Your task to perform on an android device: Clear the shopping cart on newegg. Search for logitech g903 on newegg, select the first entry, add it to the cart, then select checkout. Image 0: 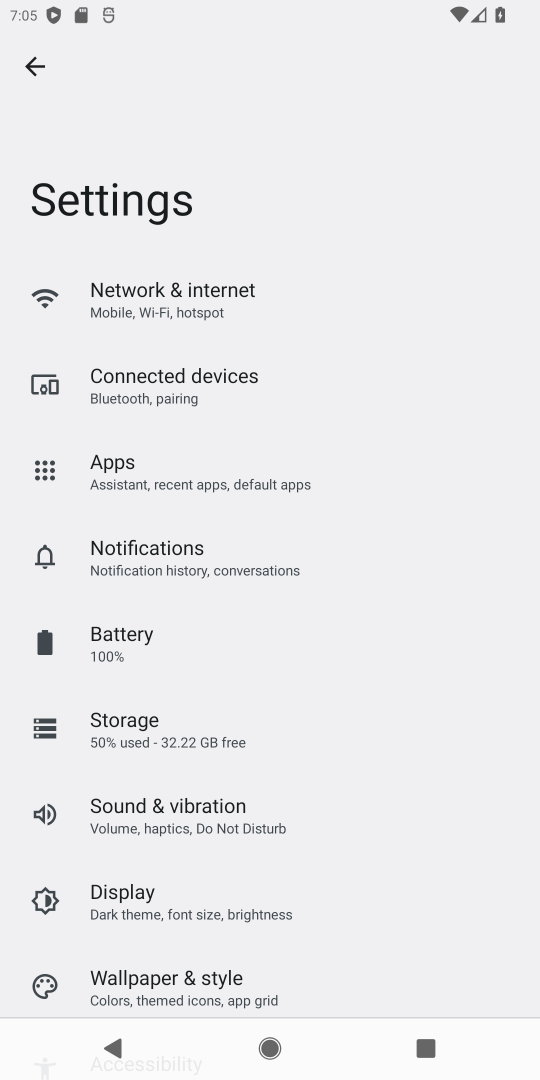
Step 0: press home button
Your task to perform on an android device: Clear the shopping cart on newegg. Search for logitech g903 on newegg, select the first entry, add it to the cart, then select checkout. Image 1: 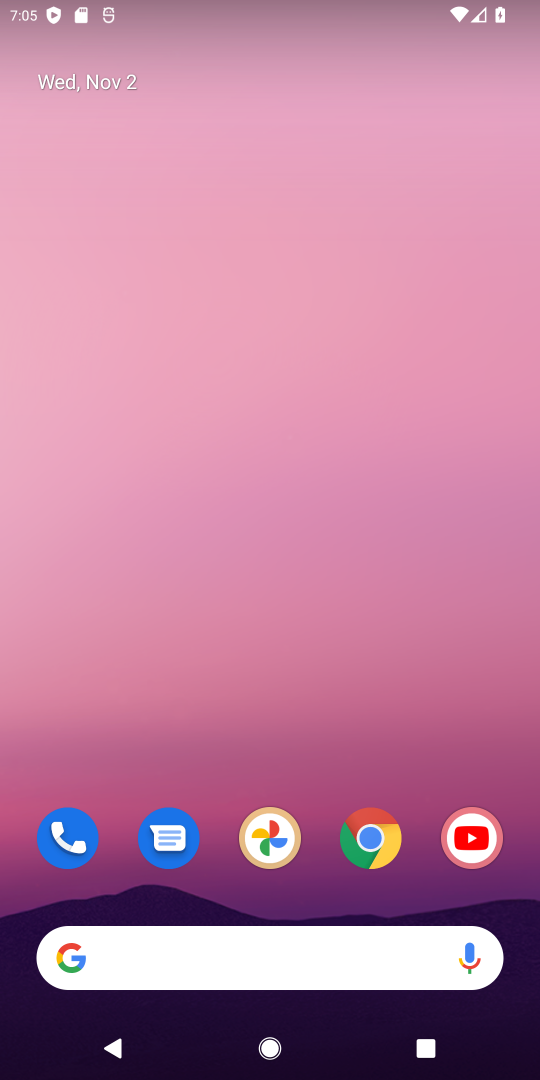
Step 1: click (360, 856)
Your task to perform on an android device: Clear the shopping cart on newegg. Search for logitech g903 on newegg, select the first entry, add it to the cart, then select checkout. Image 2: 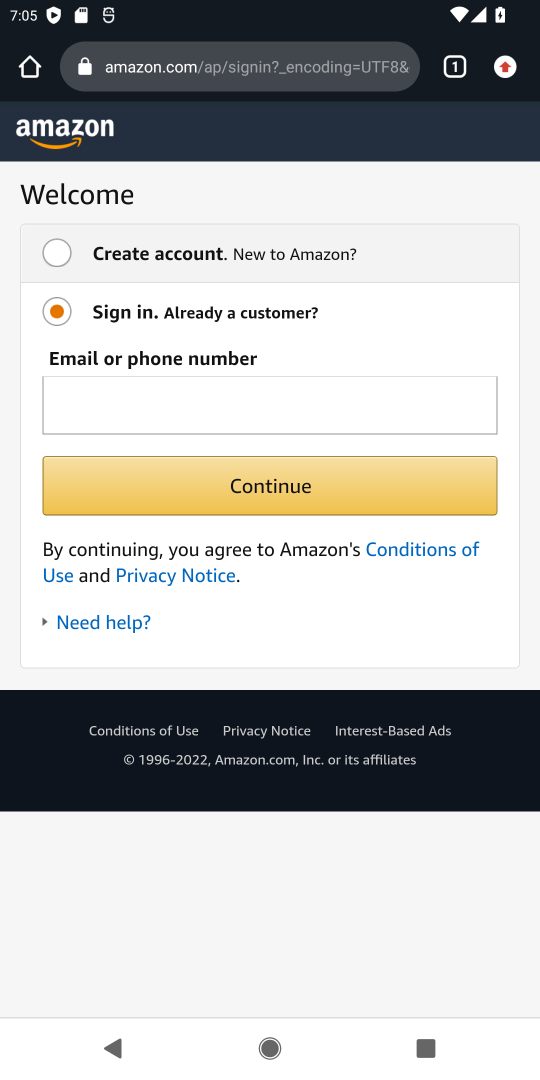
Step 2: click (306, 83)
Your task to perform on an android device: Clear the shopping cart on newegg. Search for logitech g903 on newegg, select the first entry, add it to the cart, then select checkout. Image 3: 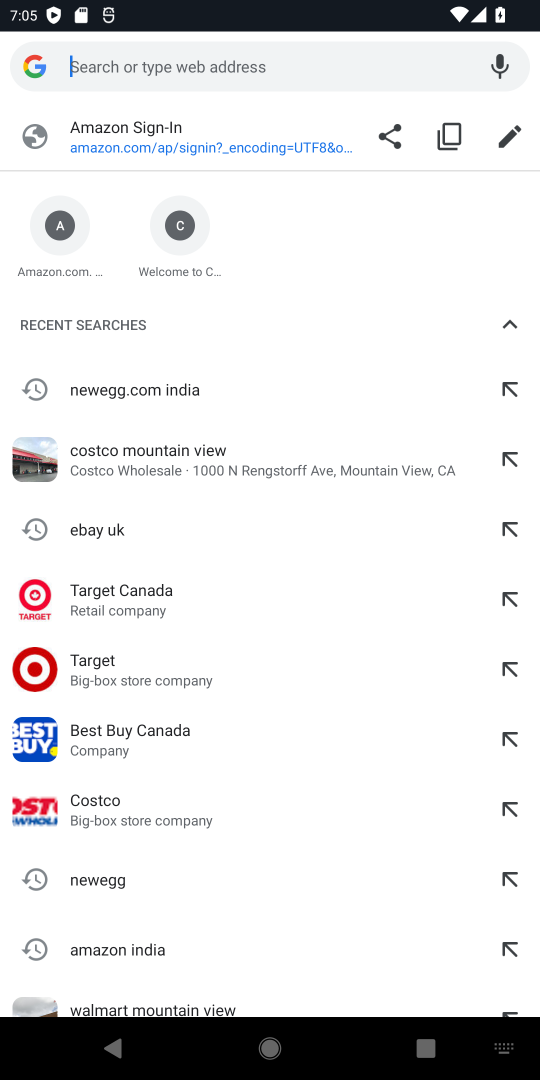
Step 3: type "newegg"
Your task to perform on an android device: Clear the shopping cart on newegg. Search for logitech g903 on newegg, select the first entry, add it to the cart, then select checkout. Image 4: 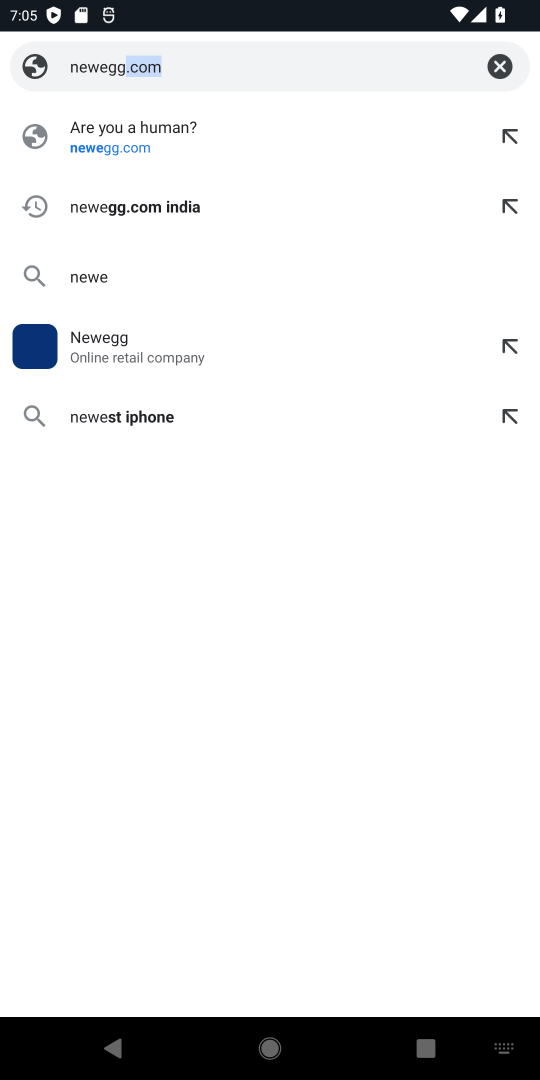
Step 4: type ""
Your task to perform on an android device: Clear the shopping cart on newegg. Search for logitech g903 on newegg, select the first entry, add it to the cart, then select checkout. Image 5: 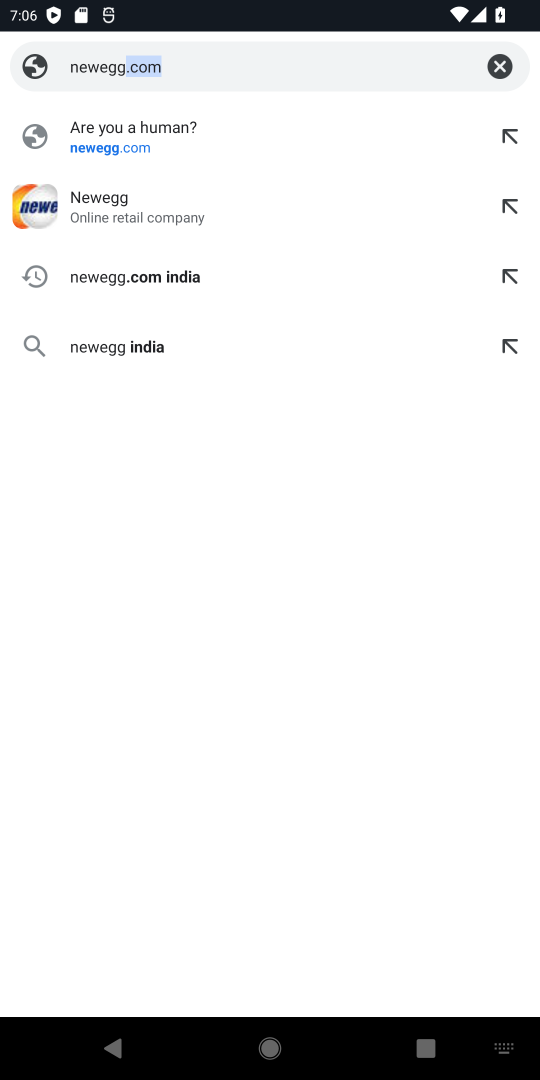
Step 5: press enter
Your task to perform on an android device: Clear the shopping cart on newegg. Search for logitech g903 on newegg, select the first entry, add it to the cart, then select checkout. Image 6: 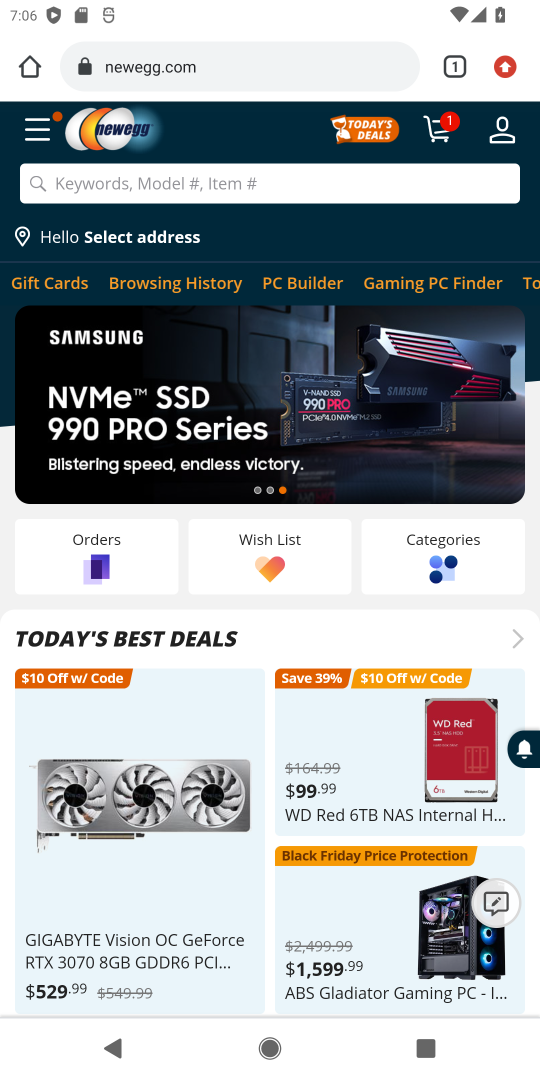
Step 6: click (448, 141)
Your task to perform on an android device: Clear the shopping cart on newegg. Search for logitech g903 on newegg, select the first entry, add it to the cart, then select checkout. Image 7: 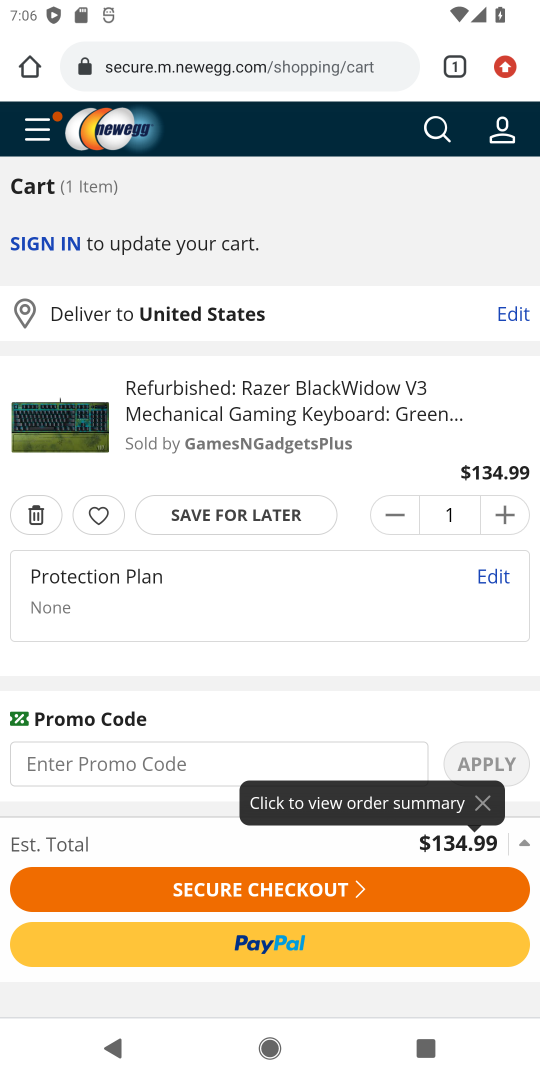
Step 7: click (26, 522)
Your task to perform on an android device: Clear the shopping cart on newegg. Search for logitech g903 on newegg, select the first entry, add it to the cart, then select checkout. Image 8: 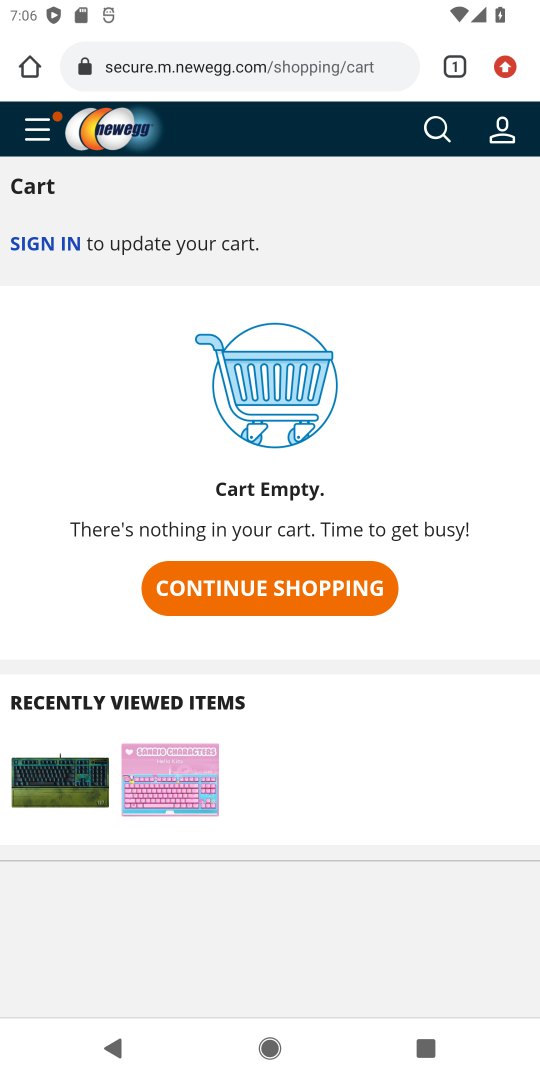
Step 8: click (293, 595)
Your task to perform on an android device: Clear the shopping cart on newegg. Search for logitech g903 on newegg, select the first entry, add it to the cart, then select checkout. Image 9: 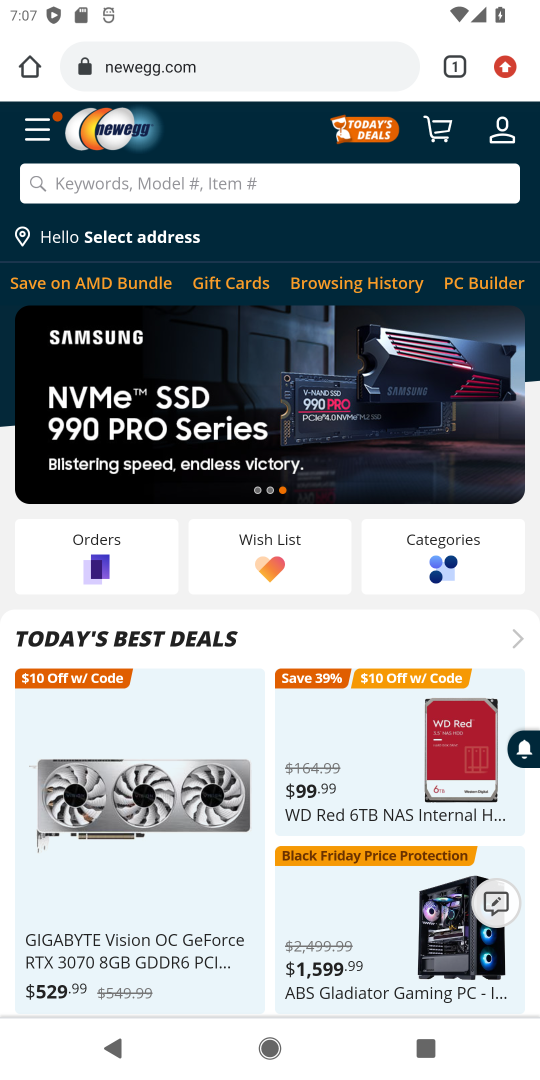
Step 9: click (276, 172)
Your task to perform on an android device: Clear the shopping cart on newegg. Search for logitech g903 on newegg, select the first entry, add it to the cart, then select checkout. Image 10: 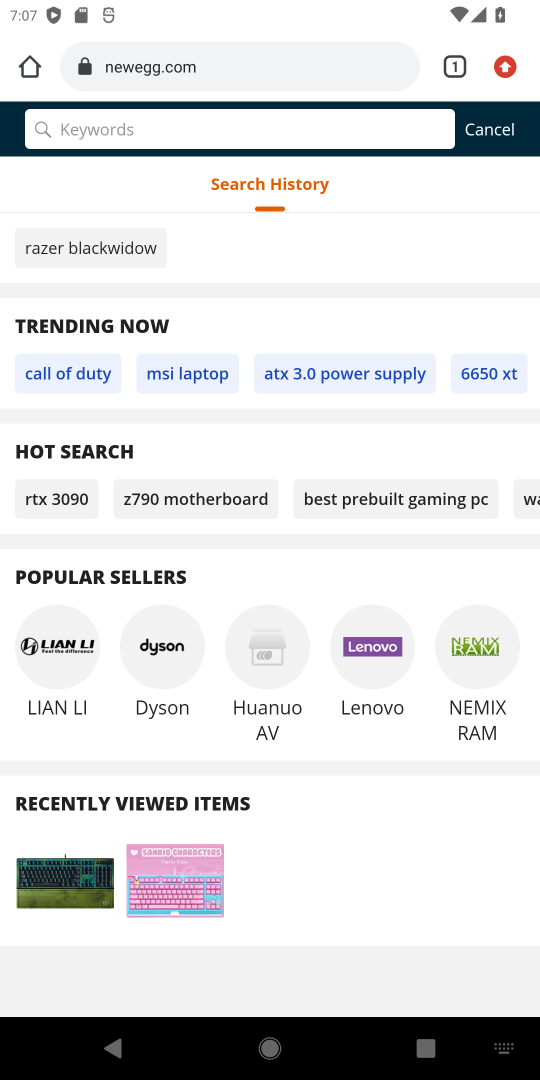
Step 10: type "logitech g903"
Your task to perform on an android device: Clear the shopping cart on newegg. Search for logitech g903 on newegg, select the first entry, add it to the cart, then select checkout. Image 11: 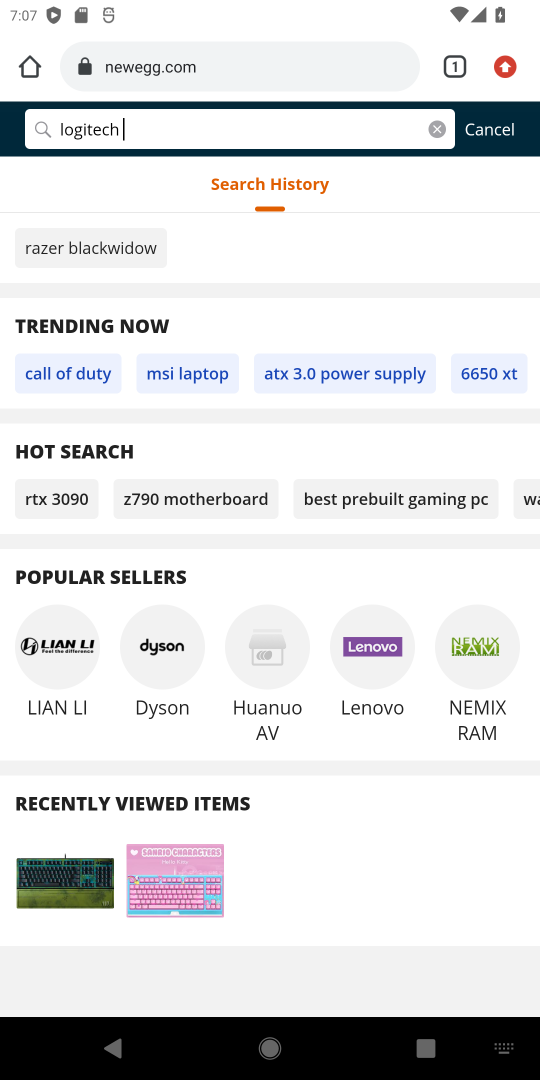
Step 11: type ""
Your task to perform on an android device: Clear the shopping cart on newegg. Search for logitech g903 on newegg, select the first entry, add it to the cart, then select checkout. Image 12: 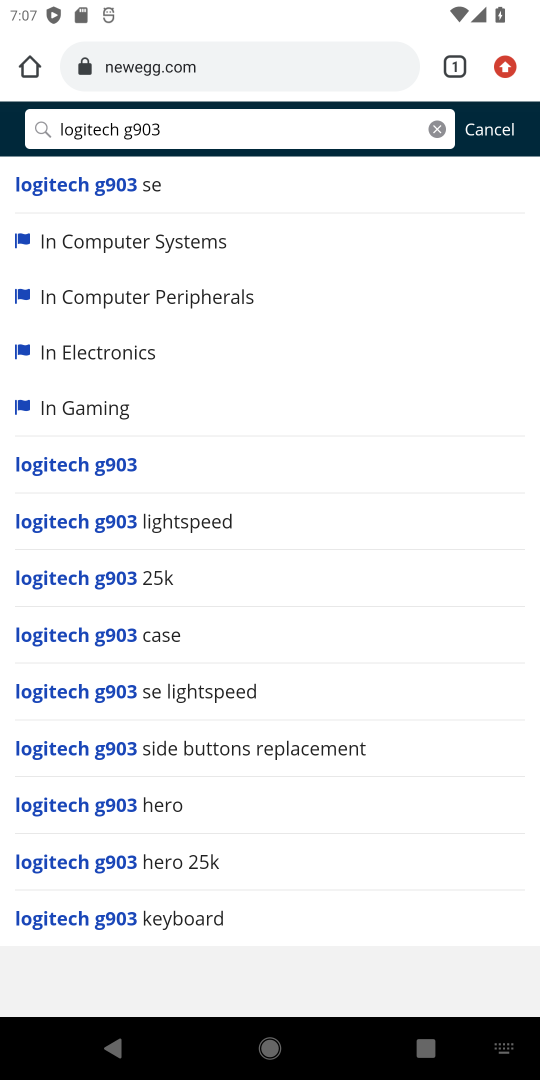
Step 12: click (491, 128)
Your task to perform on an android device: Clear the shopping cart on newegg. Search for logitech g903 on newegg, select the first entry, add it to the cart, then select checkout. Image 13: 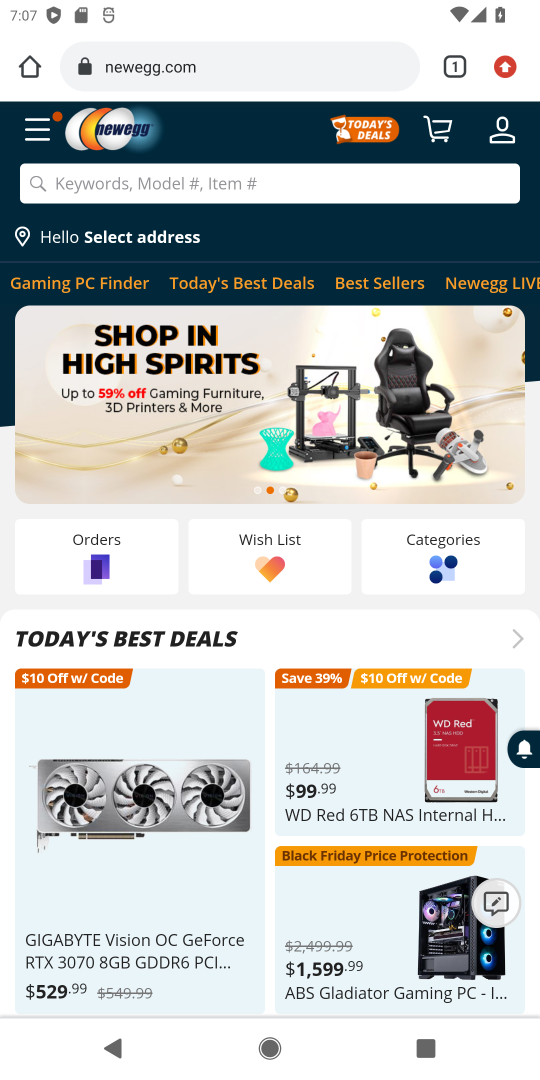
Step 13: click (442, 132)
Your task to perform on an android device: Clear the shopping cart on newegg. Search for logitech g903 on newegg, select the first entry, add it to the cart, then select checkout. Image 14: 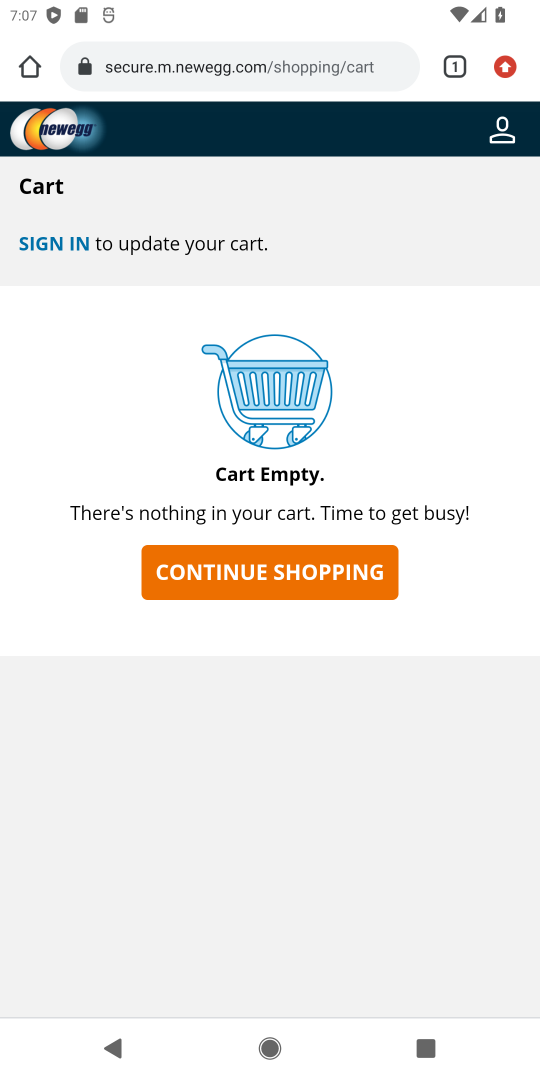
Step 14: click (265, 588)
Your task to perform on an android device: Clear the shopping cart on newegg. Search for logitech g903 on newegg, select the first entry, add it to the cart, then select checkout. Image 15: 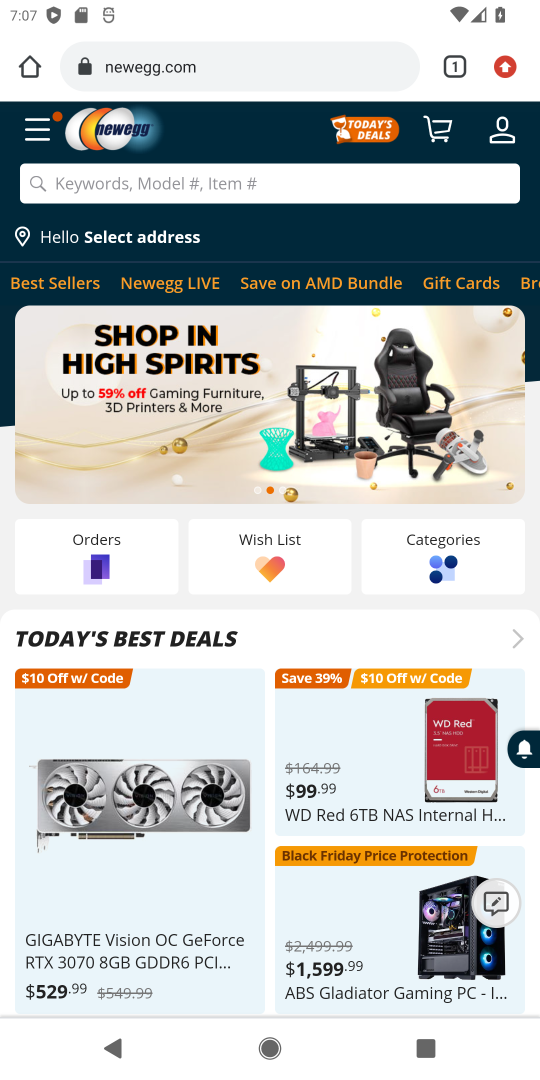
Step 15: click (257, 186)
Your task to perform on an android device: Clear the shopping cart on newegg. Search for logitech g903 on newegg, select the first entry, add it to the cart, then select checkout. Image 16: 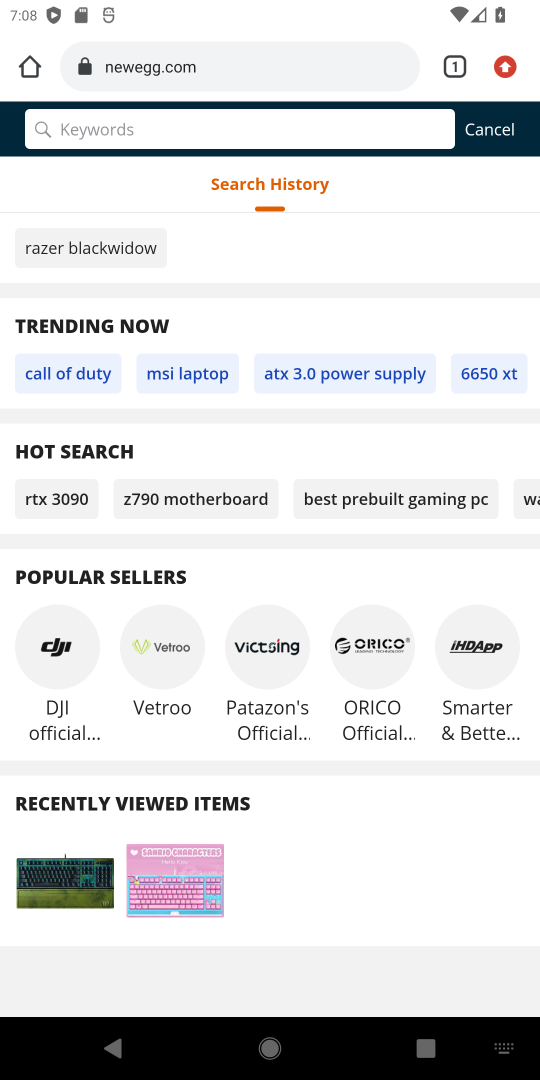
Step 16: type "logitech g903"
Your task to perform on an android device: Clear the shopping cart on newegg. Search for logitech g903 on newegg, select the first entry, add it to the cart, then select checkout. Image 17: 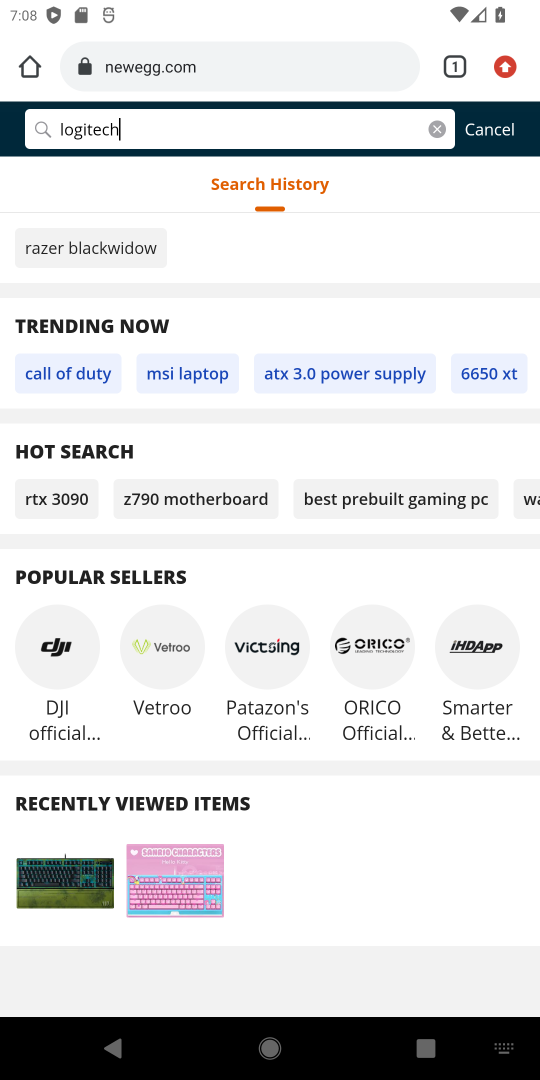
Step 17: type ""
Your task to perform on an android device: Clear the shopping cart on newegg. Search for logitech g903 on newegg, select the first entry, add it to the cart, then select checkout. Image 18: 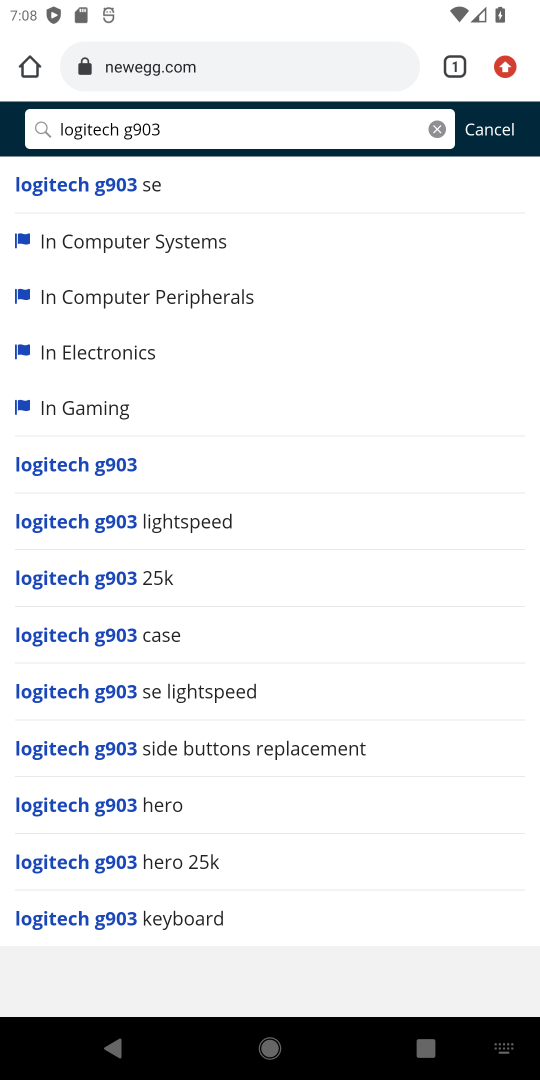
Step 18: press enter
Your task to perform on an android device: Clear the shopping cart on newegg. Search for logitech g903 on newegg, select the first entry, add it to the cart, then select checkout. Image 19: 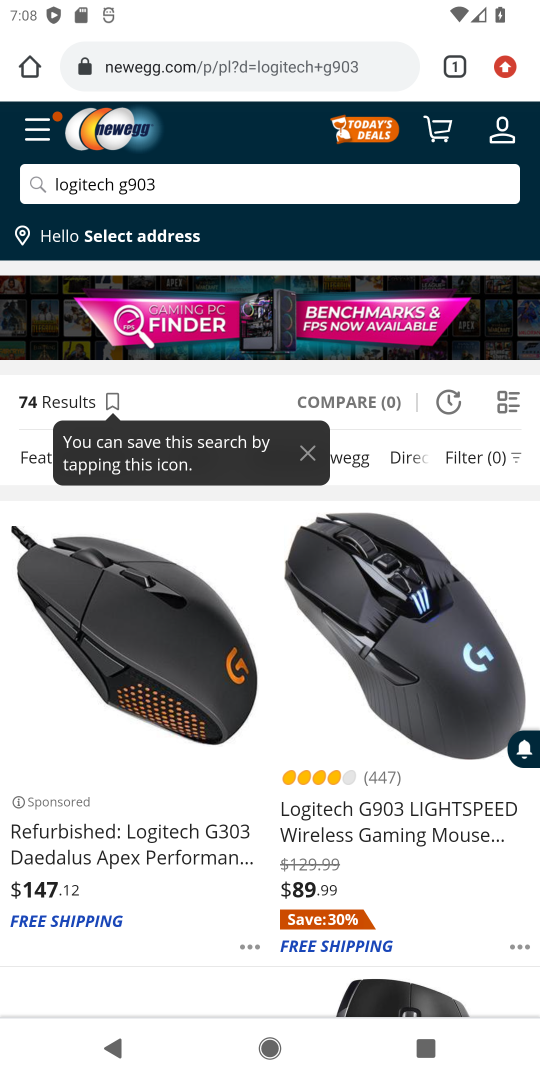
Step 19: click (196, 712)
Your task to perform on an android device: Clear the shopping cart on newegg. Search for logitech g903 on newegg, select the first entry, add it to the cart, then select checkout. Image 20: 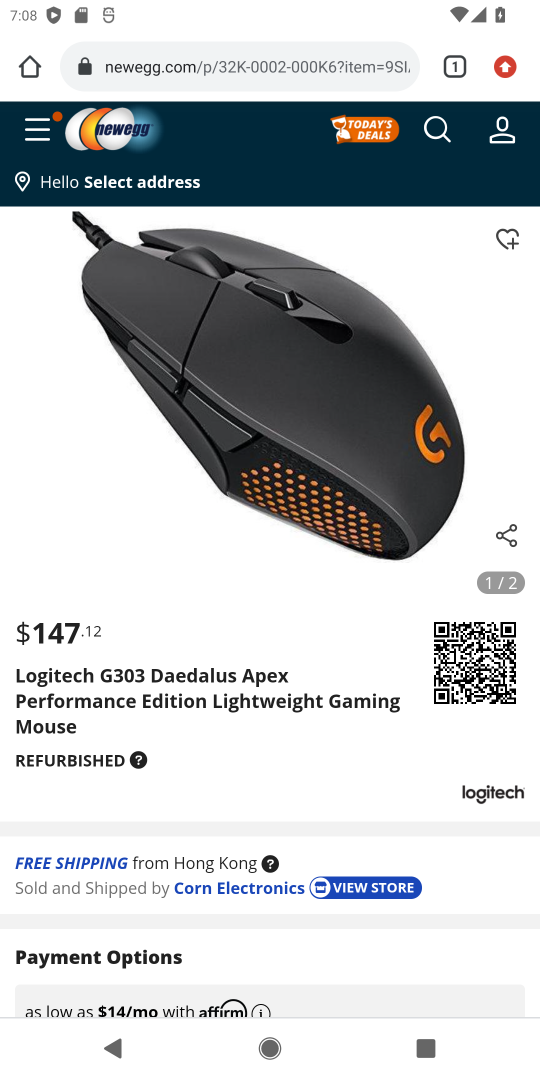
Step 20: drag from (367, 835) to (349, 383)
Your task to perform on an android device: Clear the shopping cart on newegg. Search for logitech g903 on newegg, select the first entry, add it to the cart, then select checkout. Image 21: 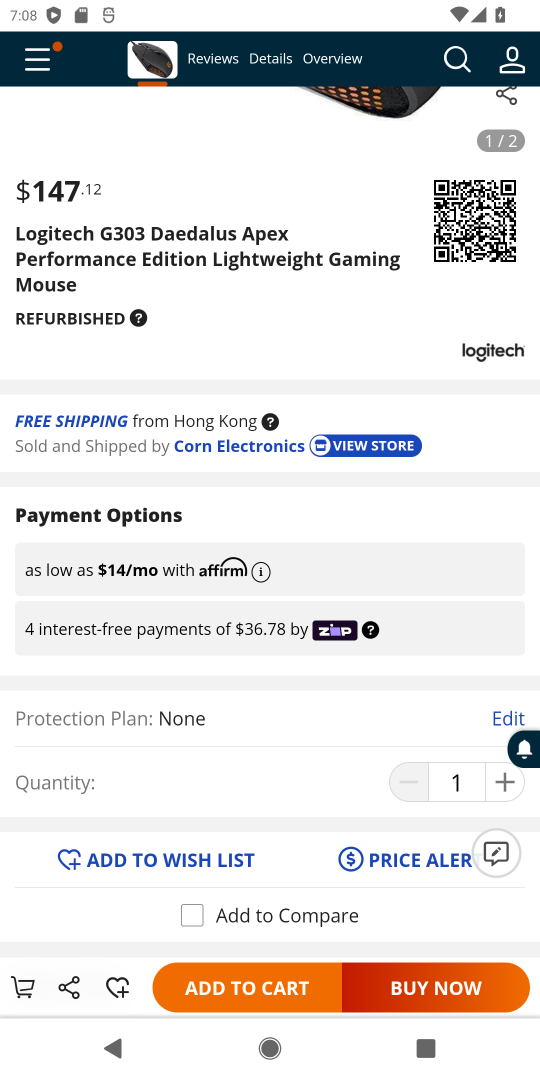
Step 21: click (279, 995)
Your task to perform on an android device: Clear the shopping cart on newegg. Search for logitech g903 on newegg, select the first entry, add it to the cart, then select checkout. Image 22: 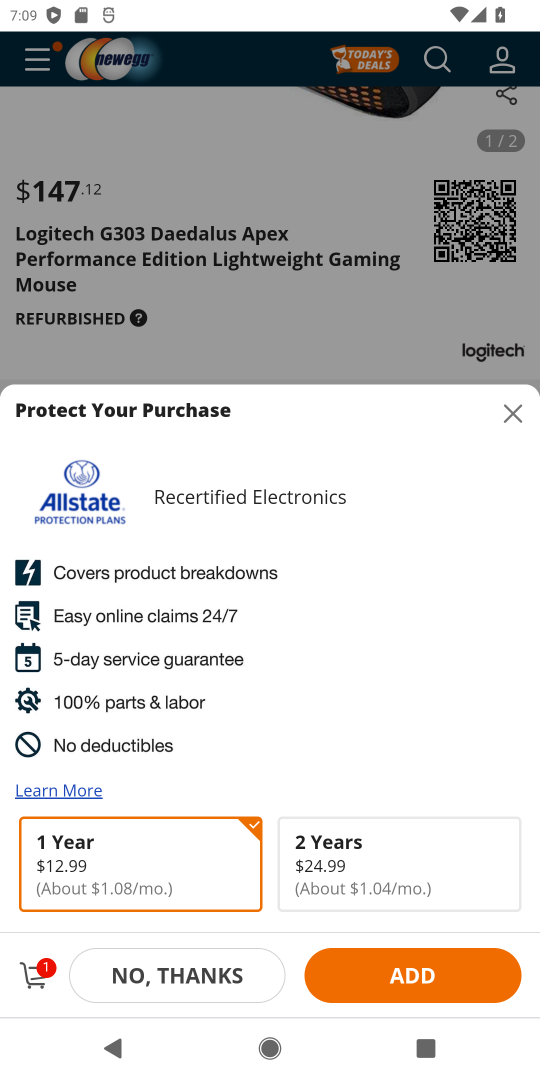
Step 22: click (281, 993)
Your task to perform on an android device: Clear the shopping cart on newegg. Search for logitech g903 on newegg, select the first entry, add it to the cart, then select checkout. Image 23: 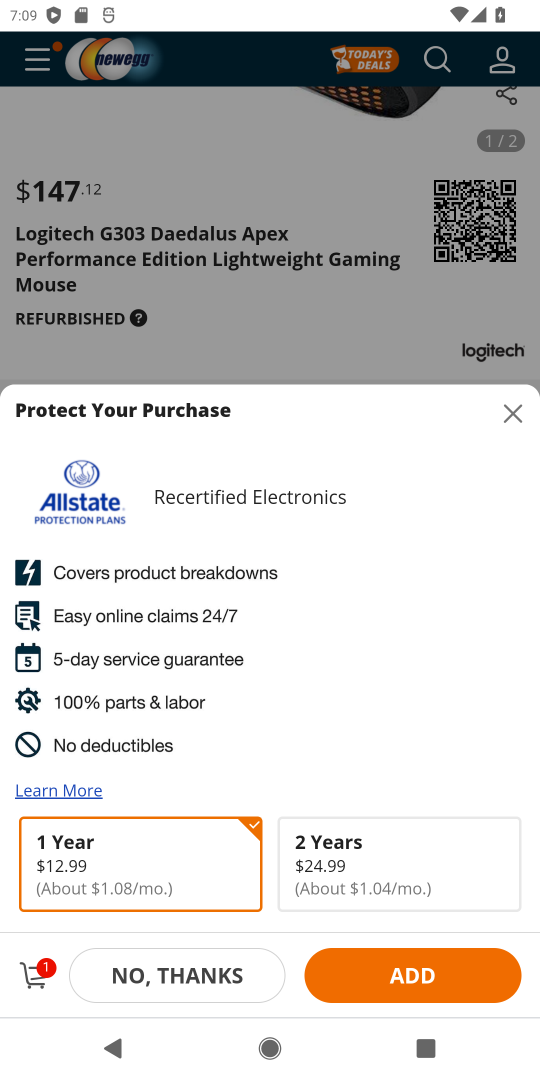
Step 23: click (178, 983)
Your task to perform on an android device: Clear the shopping cart on newegg. Search for logitech g903 on newegg, select the first entry, add it to the cart, then select checkout. Image 24: 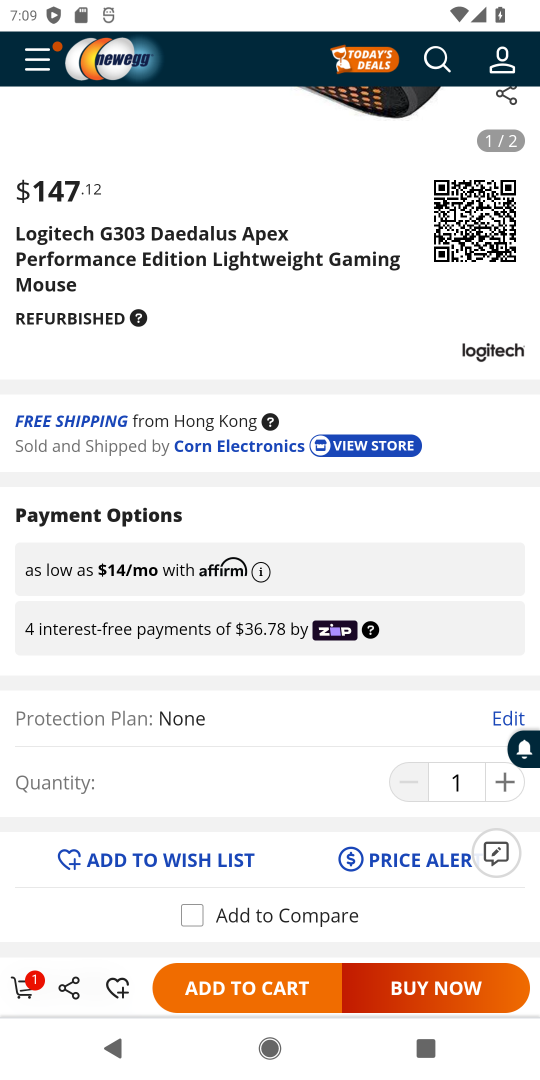
Step 24: click (26, 983)
Your task to perform on an android device: Clear the shopping cart on newegg. Search for logitech g903 on newegg, select the first entry, add it to the cart, then select checkout. Image 25: 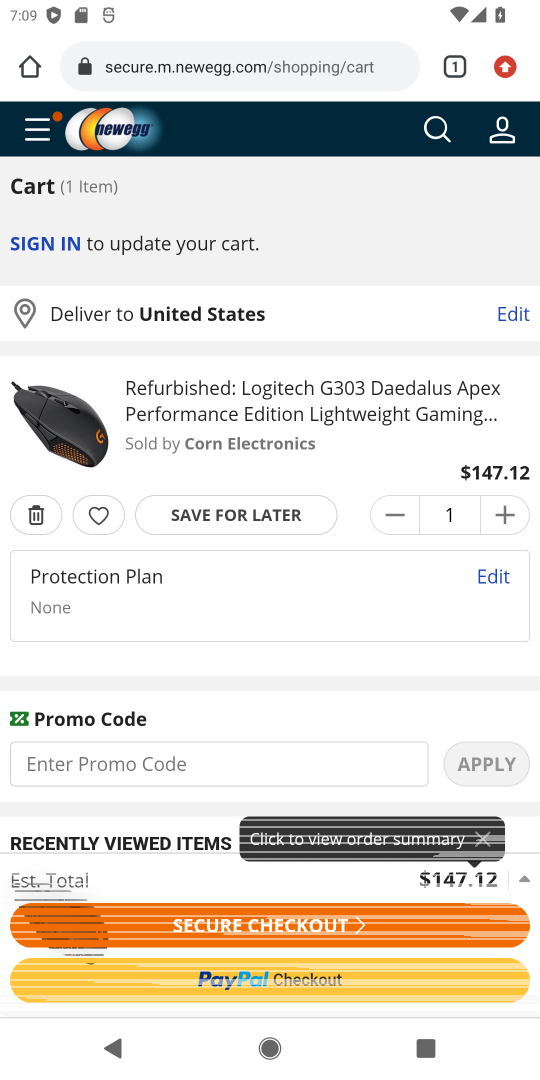
Step 25: click (389, 896)
Your task to perform on an android device: Clear the shopping cart on newegg. Search for logitech g903 on newegg, select the first entry, add it to the cart, then select checkout. Image 26: 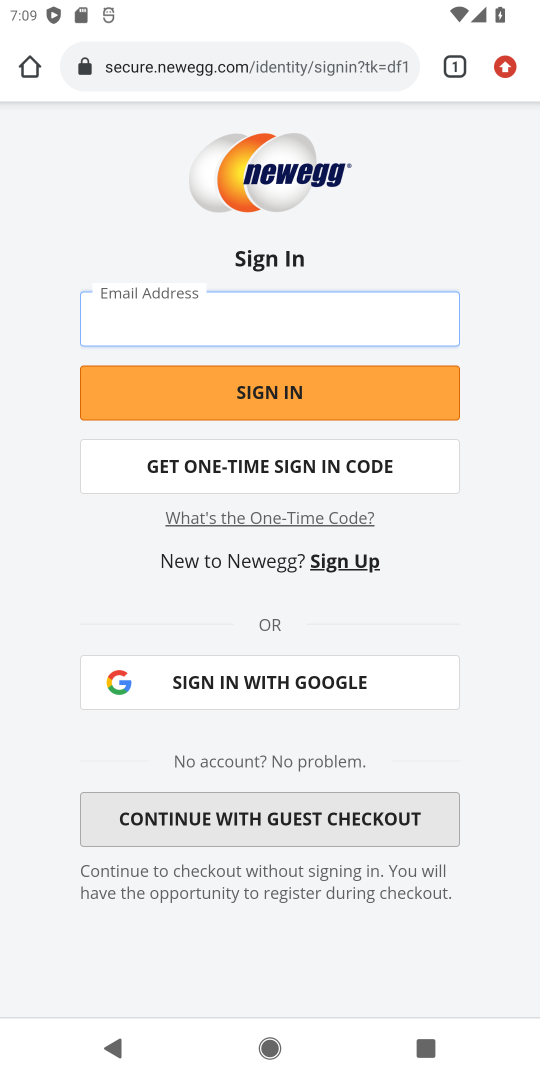
Step 26: task complete